Your task to perform on an android device: Open the calendar app, open the side menu, and click the "Day" option Image 0: 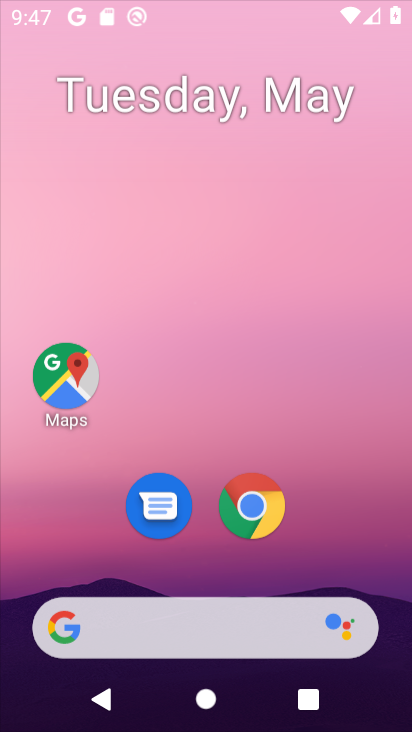
Step 0: click (321, 424)
Your task to perform on an android device: Open the calendar app, open the side menu, and click the "Day" option Image 1: 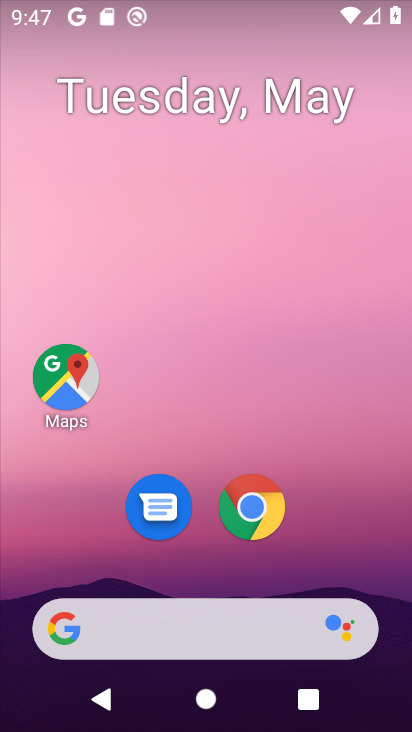
Step 1: drag from (319, 548) to (312, 232)
Your task to perform on an android device: Open the calendar app, open the side menu, and click the "Day" option Image 2: 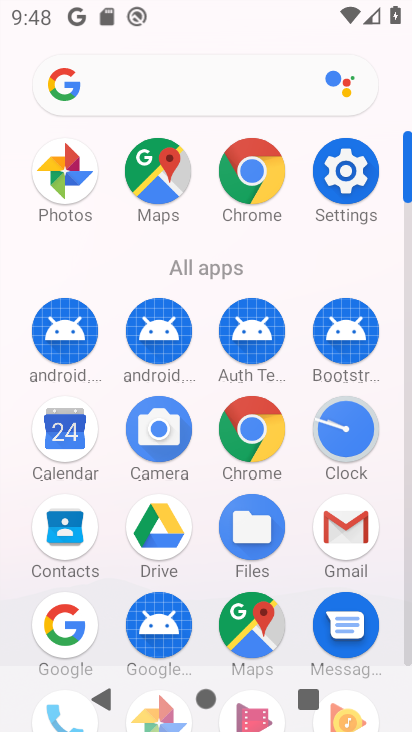
Step 2: click (65, 441)
Your task to perform on an android device: Open the calendar app, open the side menu, and click the "Day" option Image 3: 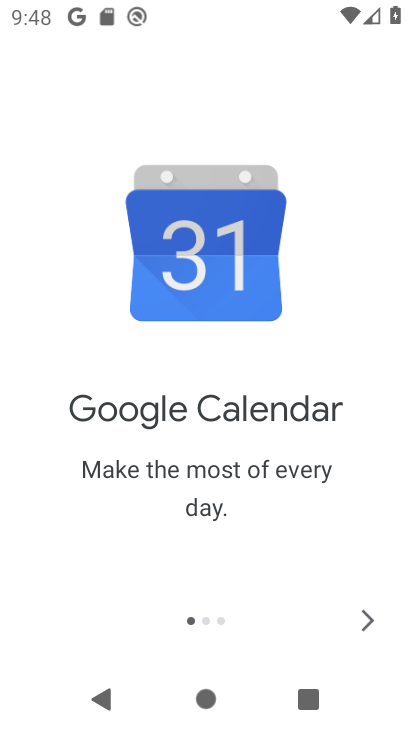
Step 3: click (365, 623)
Your task to perform on an android device: Open the calendar app, open the side menu, and click the "Day" option Image 4: 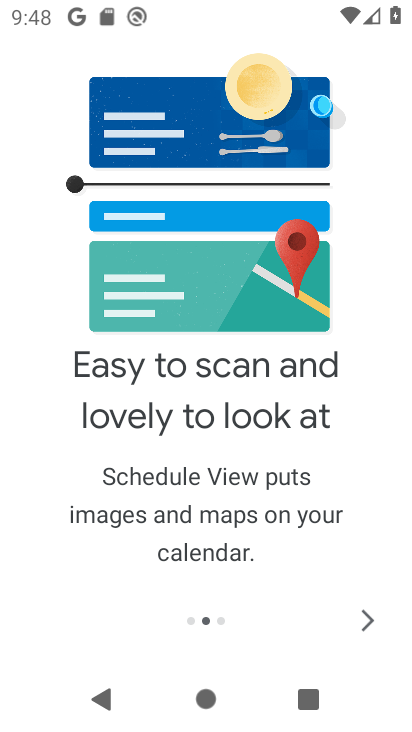
Step 4: click (365, 623)
Your task to perform on an android device: Open the calendar app, open the side menu, and click the "Day" option Image 5: 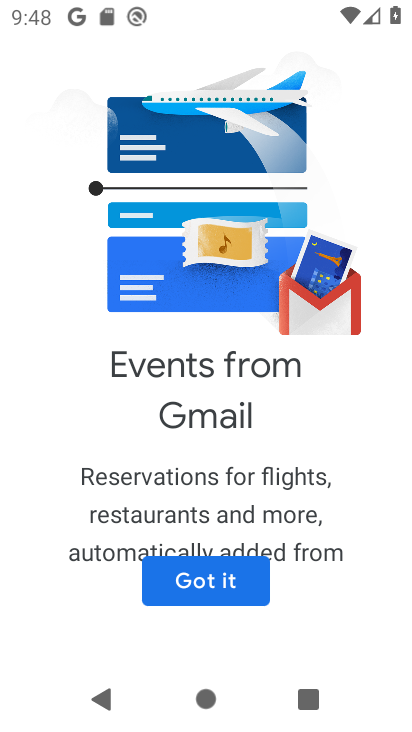
Step 5: click (211, 583)
Your task to perform on an android device: Open the calendar app, open the side menu, and click the "Day" option Image 6: 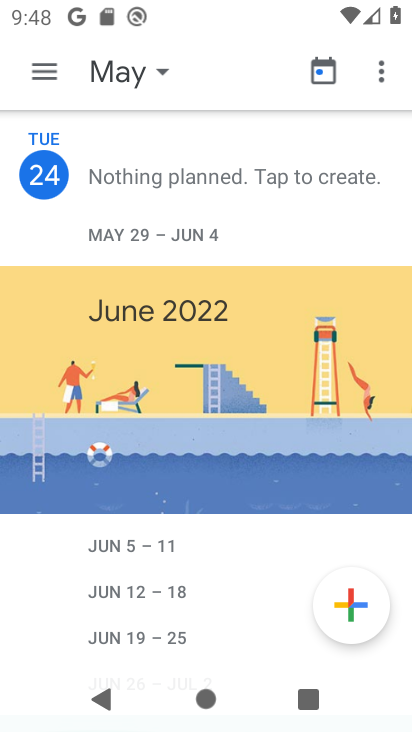
Step 6: click (50, 79)
Your task to perform on an android device: Open the calendar app, open the side menu, and click the "Day" option Image 7: 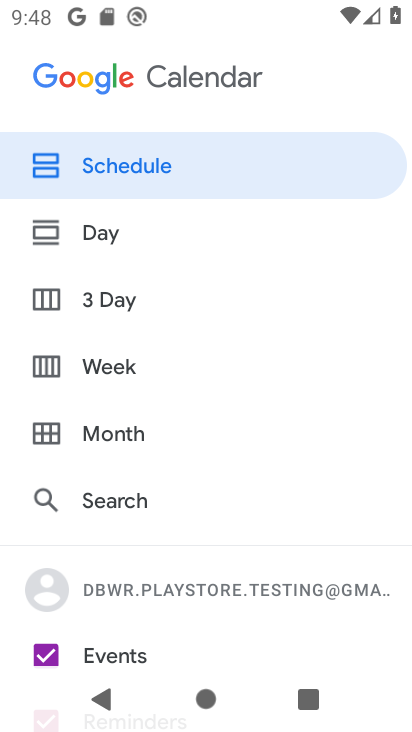
Step 7: click (97, 224)
Your task to perform on an android device: Open the calendar app, open the side menu, and click the "Day" option Image 8: 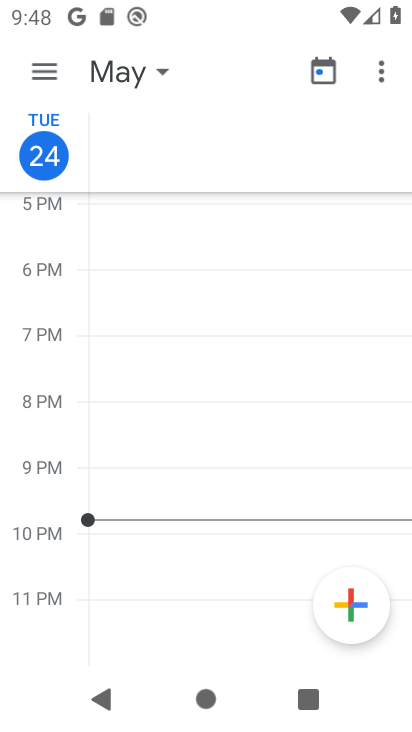
Step 8: task complete